Your task to perform on an android device: Open the map Image 0: 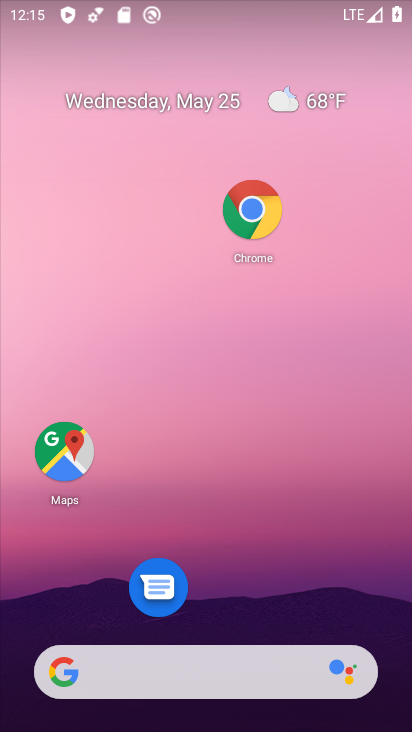
Step 0: click (63, 443)
Your task to perform on an android device: Open the map Image 1: 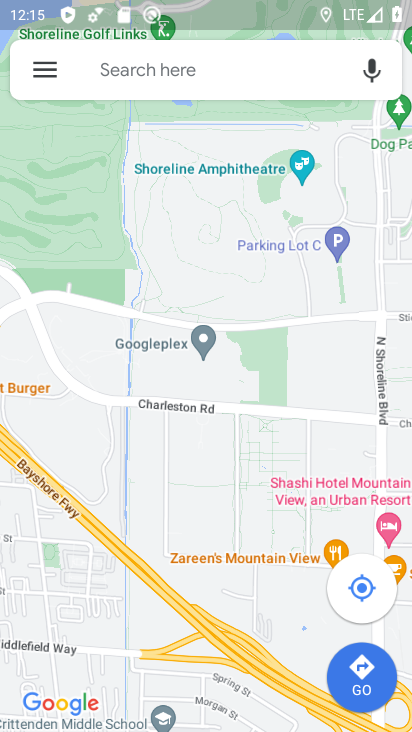
Step 1: task complete